Your task to perform on an android device: Open the map Image 0: 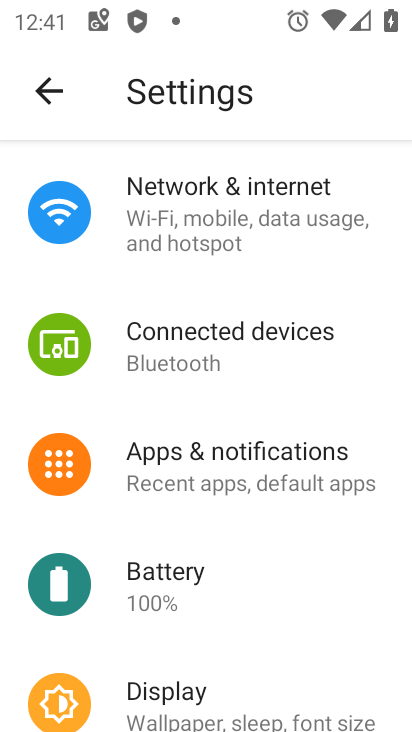
Step 0: press home button
Your task to perform on an android device: Open the map Image 1: 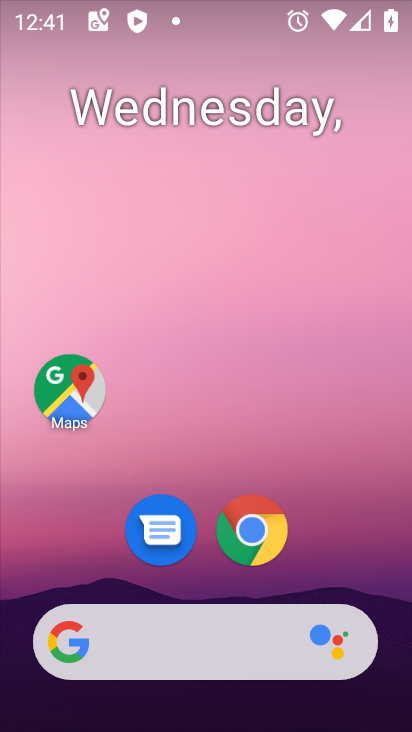
Step 1: click (71, 395)
Your task to perform on an android device: Open the map Image 2: 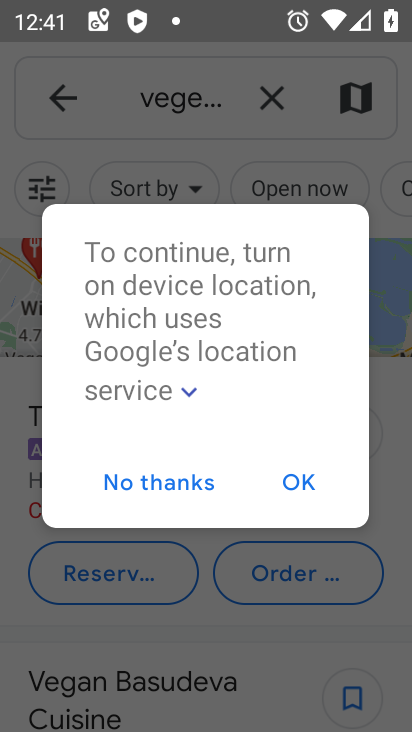
Step 2: press home button
Your task to perform on an android device: Open the map Image 3: 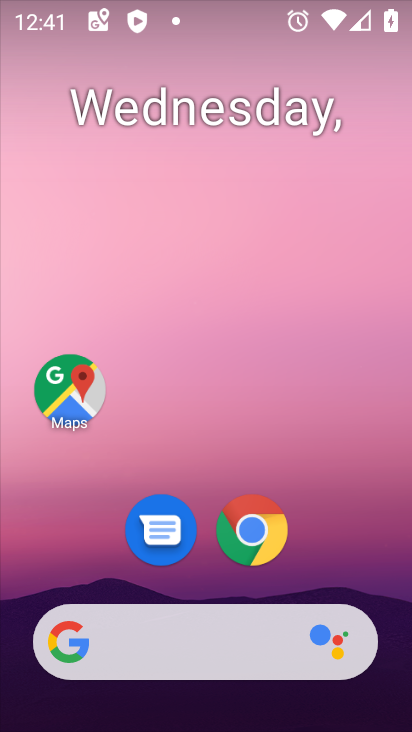
Step 3: click (60, 391)
Your task to perform on an android device: Open the map Image 4: 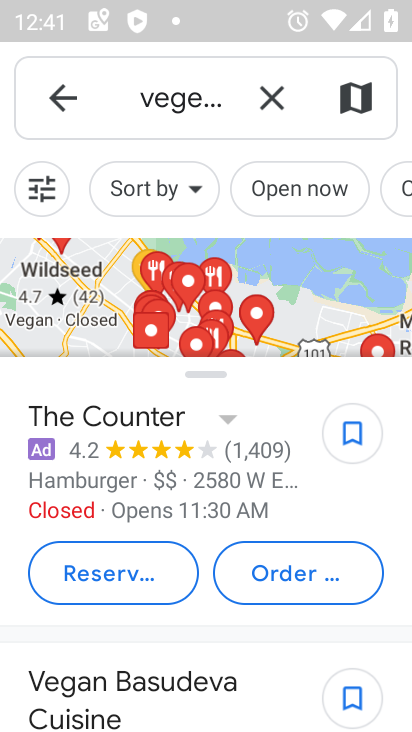
Step 4: task complete